Your task to perform on an android device: Go to wifi settings Image 0: 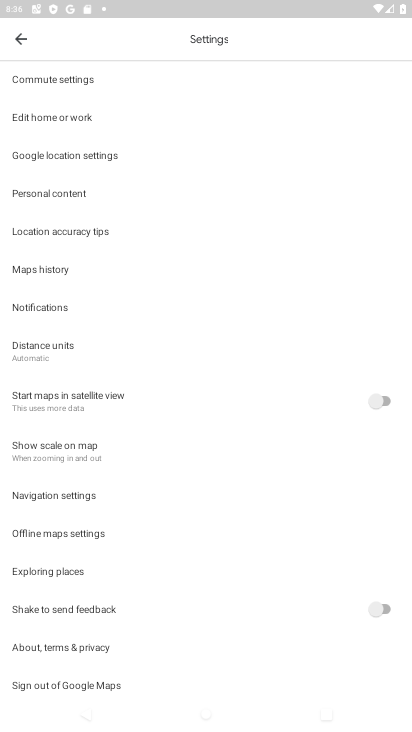
Step 0: press home button
Your task to perform on an android device: Go to wifi settings Image 1: 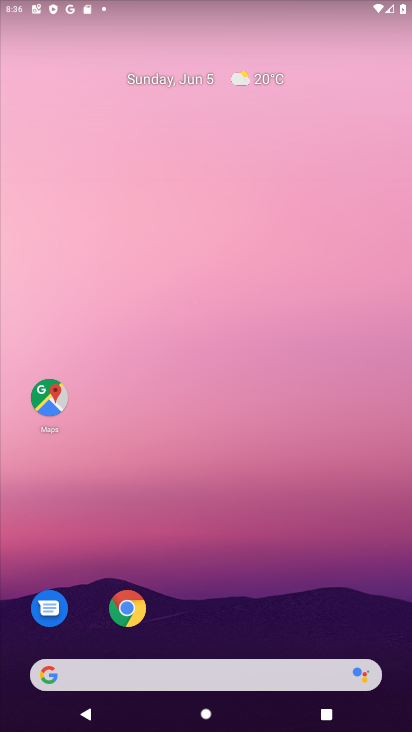
Step 1: drag from (32, 579) to (245, 154)
Your task to perform on an android device: Go to wifi settings Image 2: 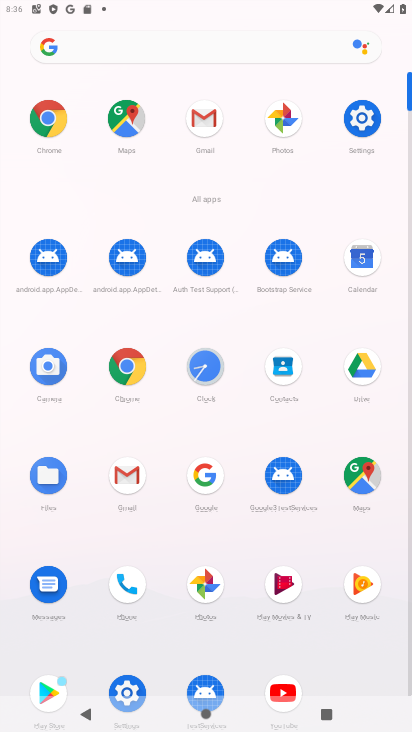
Step 2: click (357, 127)
Your task to perform on an android device: Go to wifi settings Image 3: 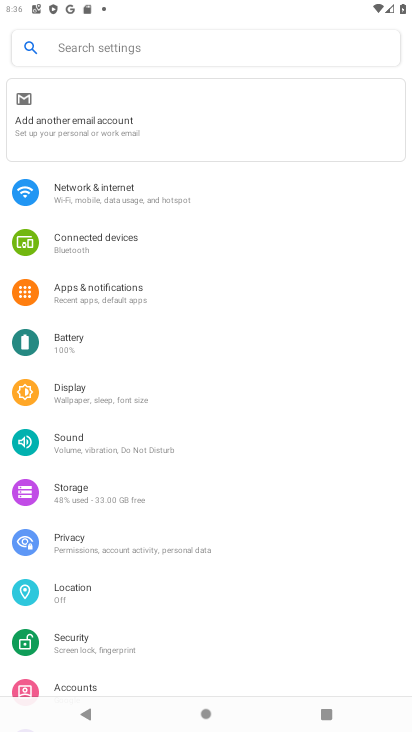
Step 3: click (204, 199)
Your task to perform on an android device: Go to wifi settings Image 4: 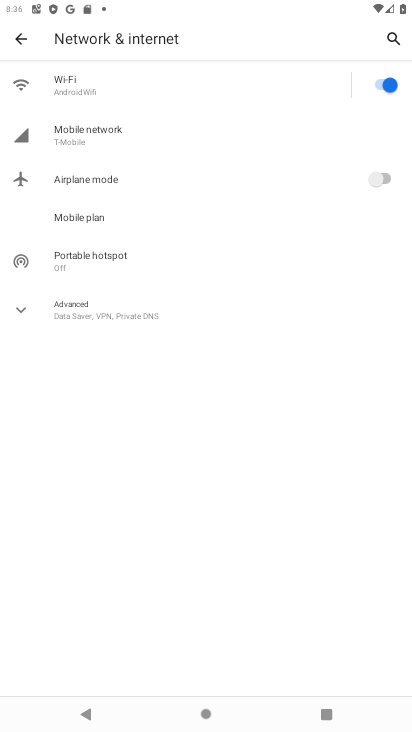
Step 4: click (109, 85)
Your task to perform on an android device: Go to wifi settings Image 5: 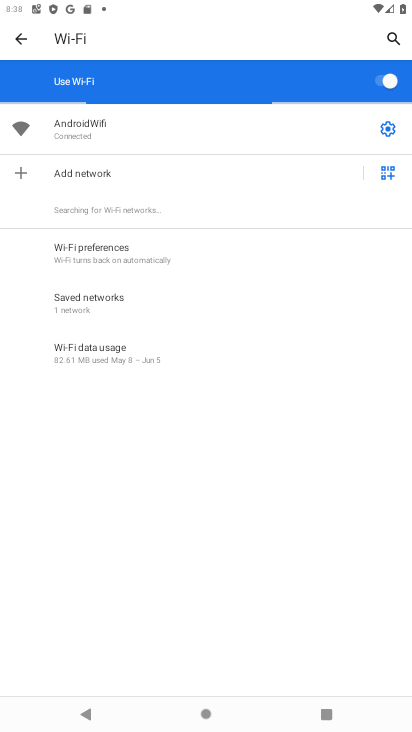
Step 5: task complete